Your task to perform on an android device: Go to Yahoo.com Image 0: 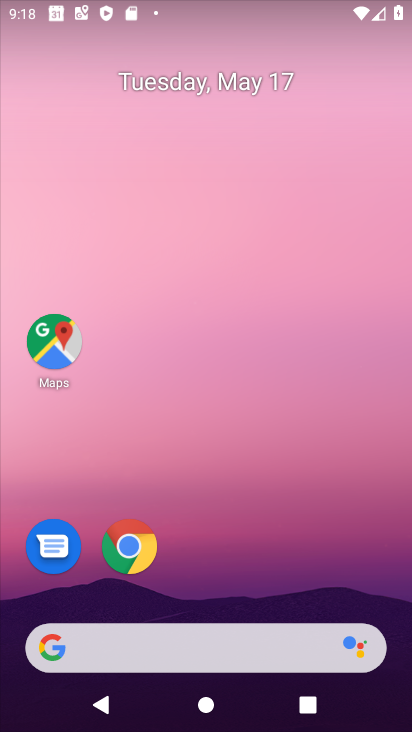
Step 0: click (137, 553)
Your task to perform on an android device: Go to Yahoo.com Image 1: 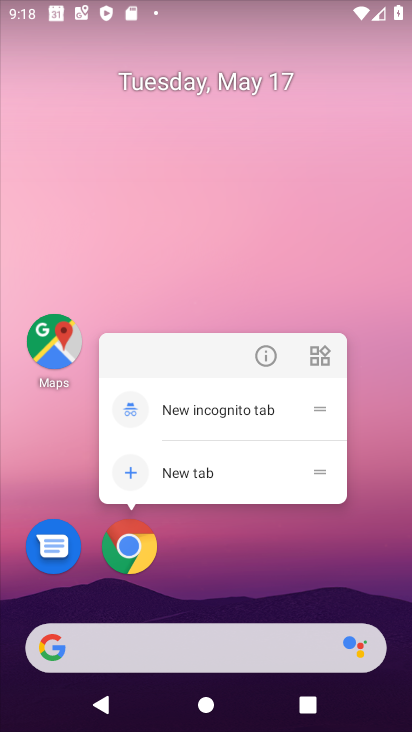
Step 1: click (134, 551)
Your task to perform on an android device: Go to Yahoo.com Image 2: 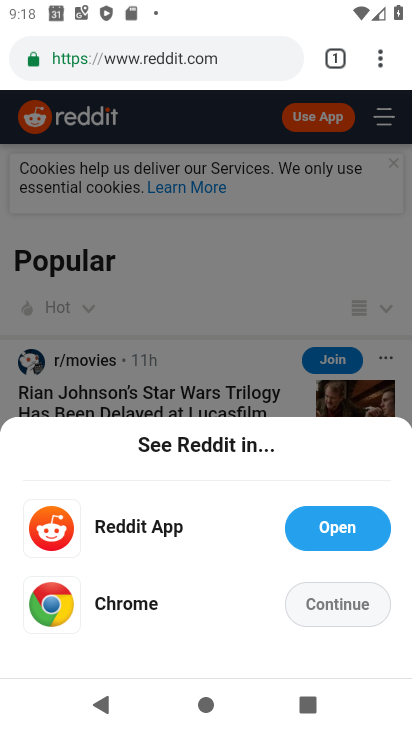
Step 2: click (149, 63)
Your task to perform on an android device: Go to Yahoo.com Image 3: 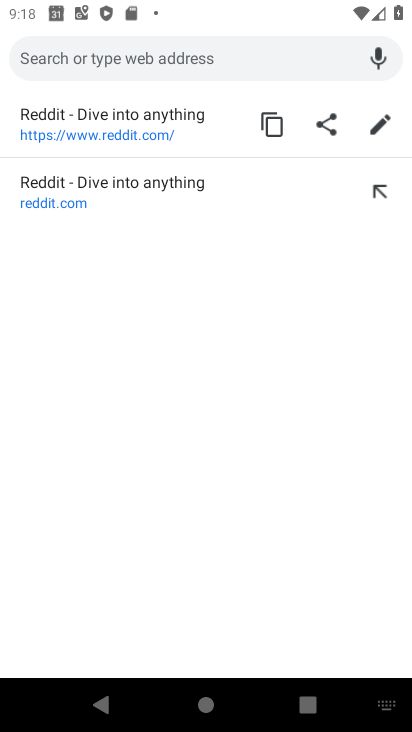
Step 3: type "yahoo.com"
Your task to perform on an android device: Go to Yahoo.com Image 4: 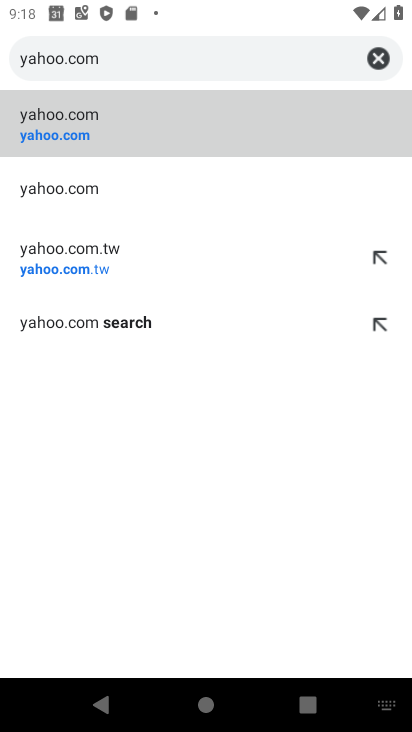
Step 4: click (68, 121)
Your task to perform on an android device: Go to Yahoo.com Image 5: 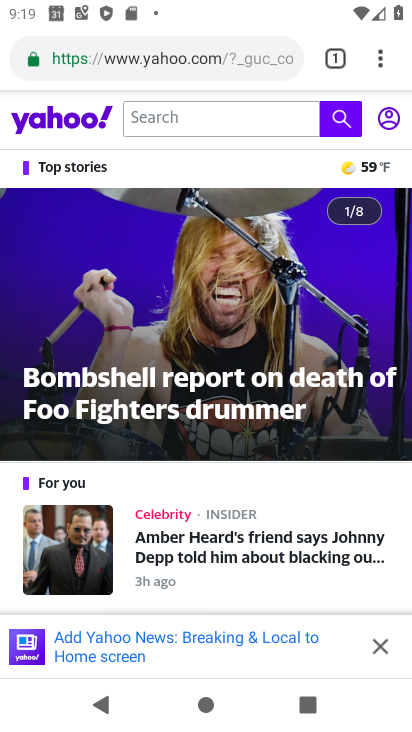
Step 5: task complete